Your task to perform on an android device: set an alarm Image 0: 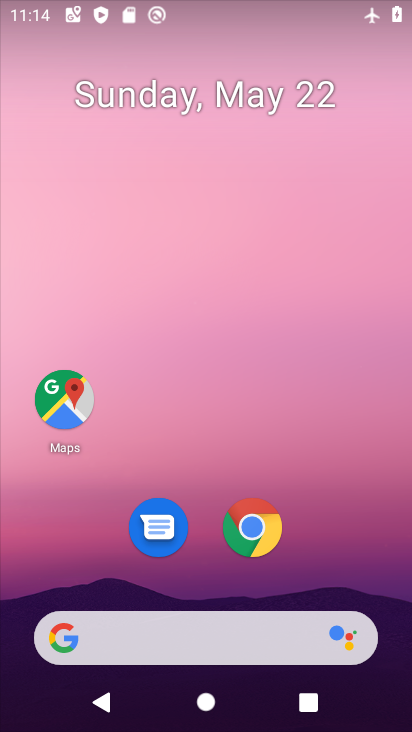
Step 0: drag from (366, 584) to (367, 254)
Your task to perform on an android device: set an alarm Image 1: 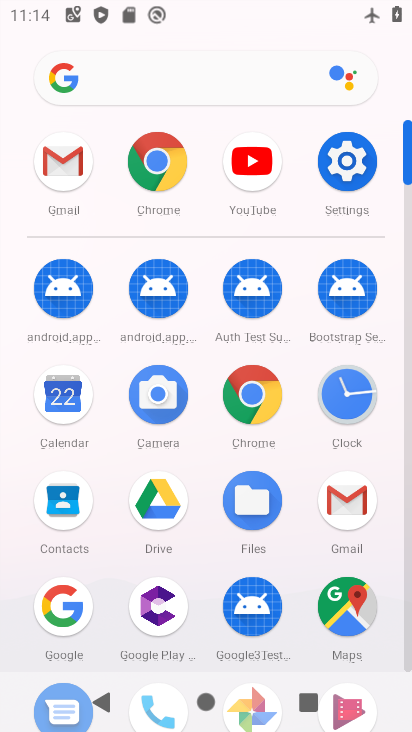
Step 1: click (356, 399)
Your task to perform on an android device: set an alarm Image 2: 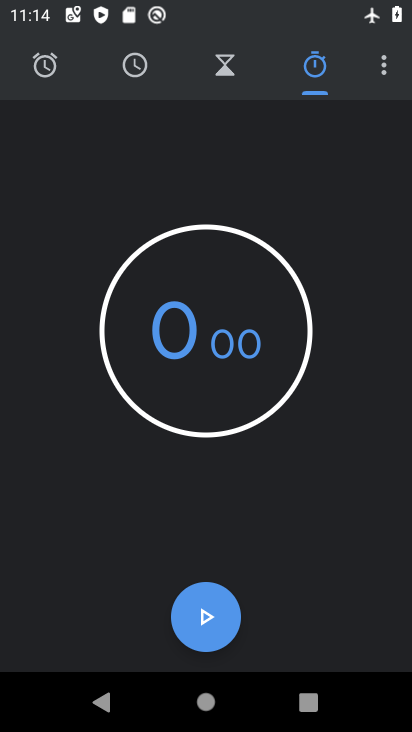
Step 2: click (50, 51)
Your task to perform on an android device: set an alarm Image 3: 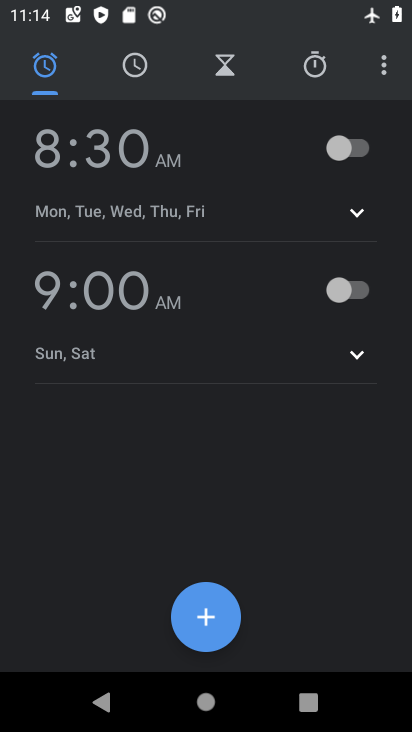
Step 3: click (338, 169)
Your task to perform on an android device: set an alarm Image 4: 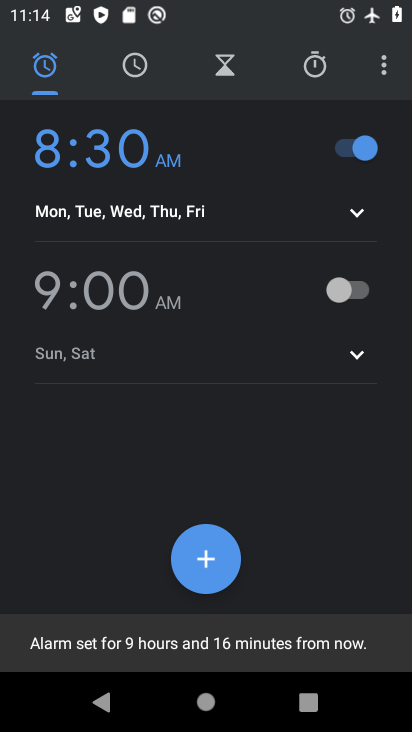
Step 4: task complete